Your task to perform on an android device: Open my contact list Image 0: 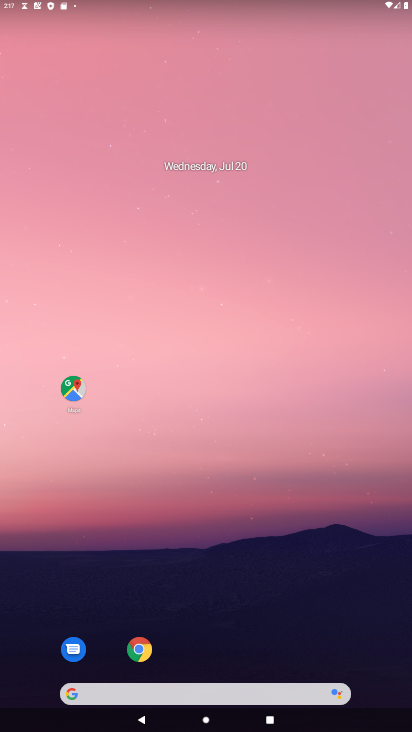
Step 0: drag from (245, 650) to (372, 8)
Your task to perform on an android device: Open my contact list Image 1: 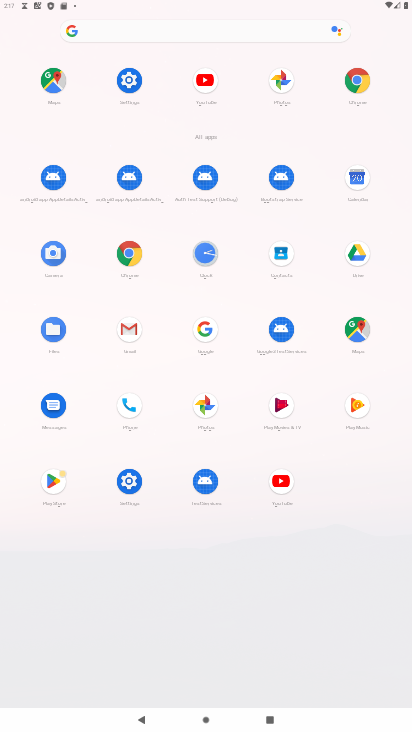
Step 1: click (288, 261)
Your task to perform on an android device: Open my contact list Image 2: 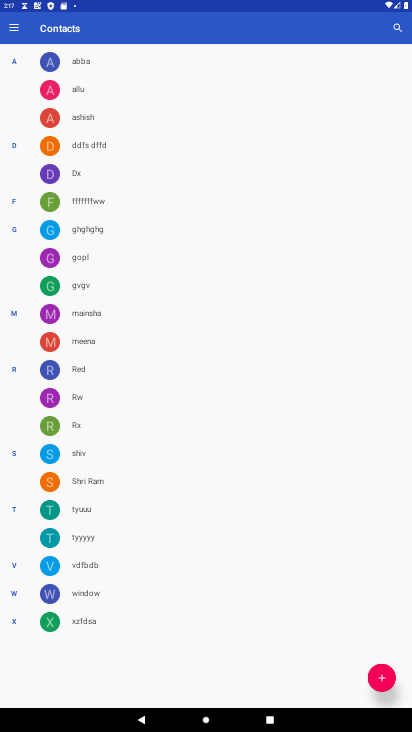
Step 2: task complete